Your task to perform on an android device: turn on priority inbox in the gmail app Image 0: 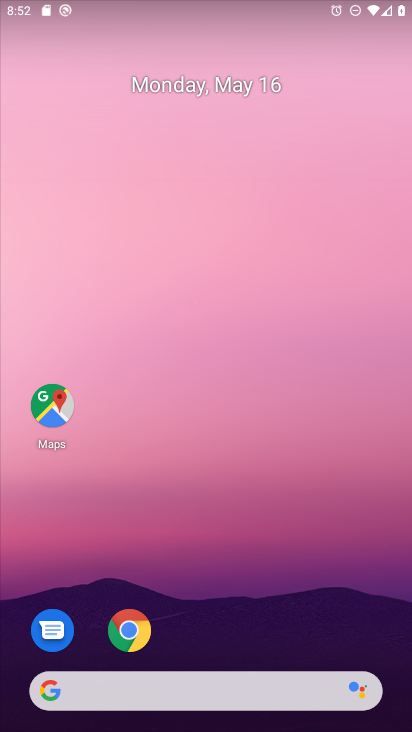
Step 0: click (224, 121)
Your task to perform on an android device: turn on priority inbox in the gmail app Image 1: 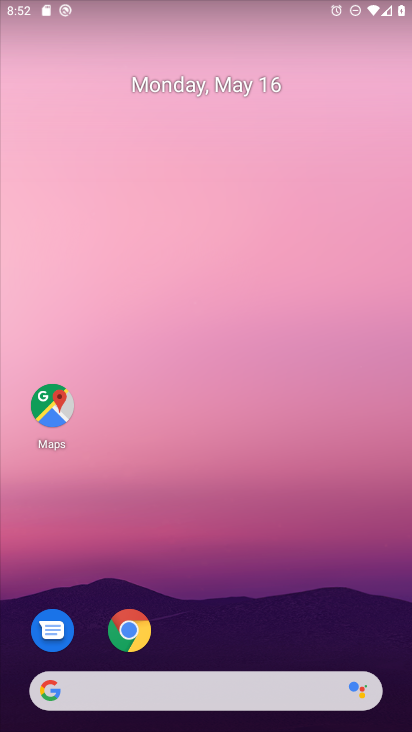
Step 1: drag from (187, 607) to (225, 73)
Your task to perform on an android device: turn on priority inbox in the gmail app Image 2: 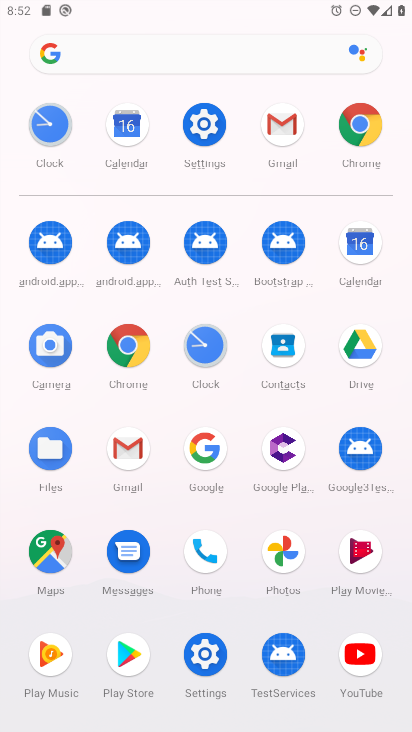
Step 2: click (279, 122)
Your task to perform on an android device: turn on priority inbox in the gmail app Image 3: 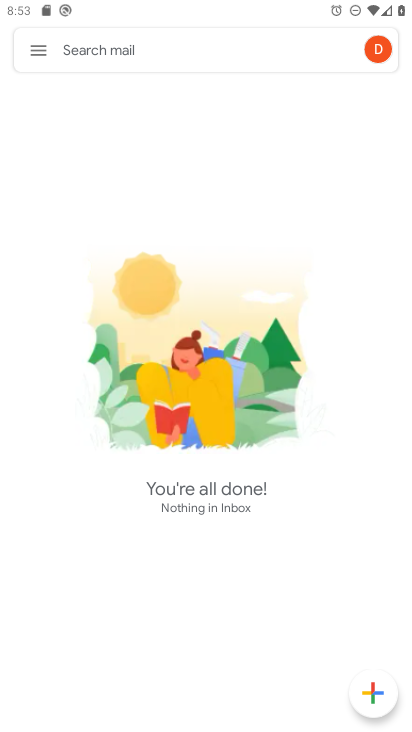
Step 3: click (30, 50)
Your task to perform on an android device: turn on priority inbox in the gmail app Image 4: 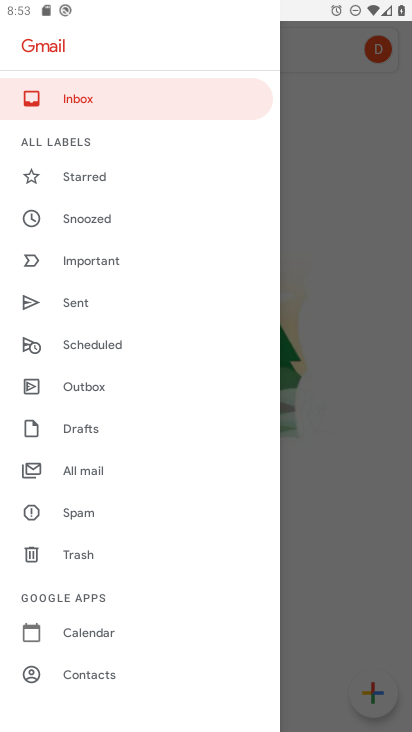
Step 4: click (295, 226)
Your task to perform on an android device: turn on priority inbox in the gmail app Image 5: 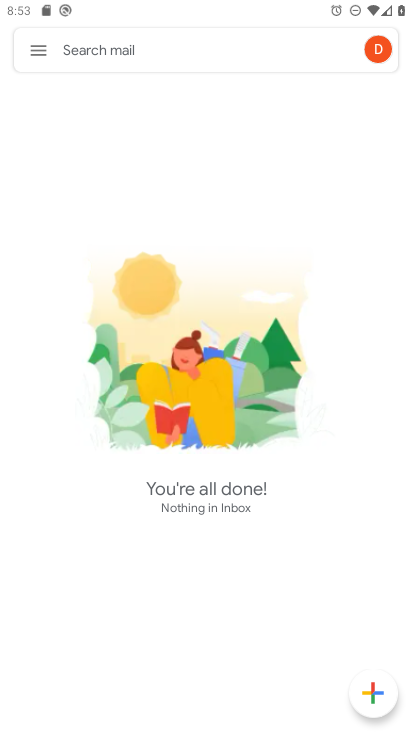
Step 5: task complete